Your task to perform on an android device: open app "Facebook Messenger" (install if not already installed) Image 0: 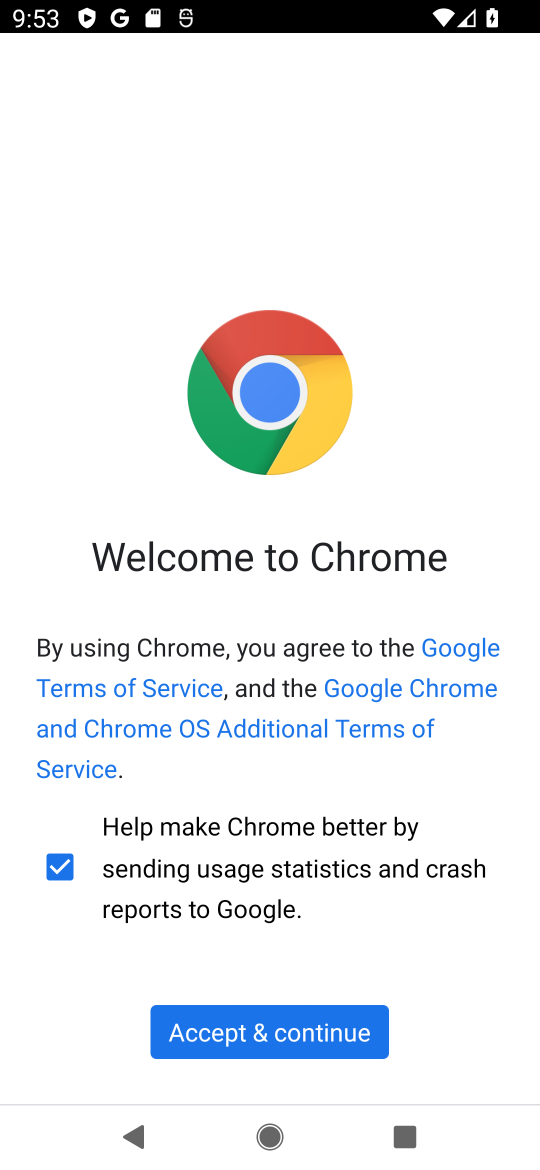
Step 0: press home button
Your task to perform on an android device: open app "Facebook Messenger" (install if not already installed) Image 1: 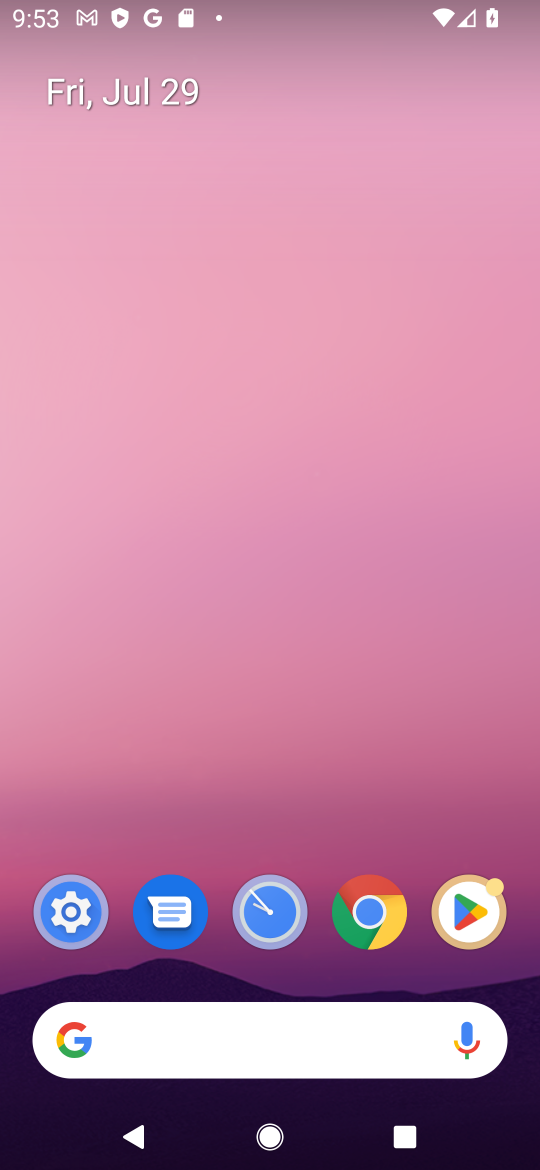
Step 1: click (287, 3)
Your task to perform on an android device: open app "Facebook Messenger" (install if not already installed) Image 2: 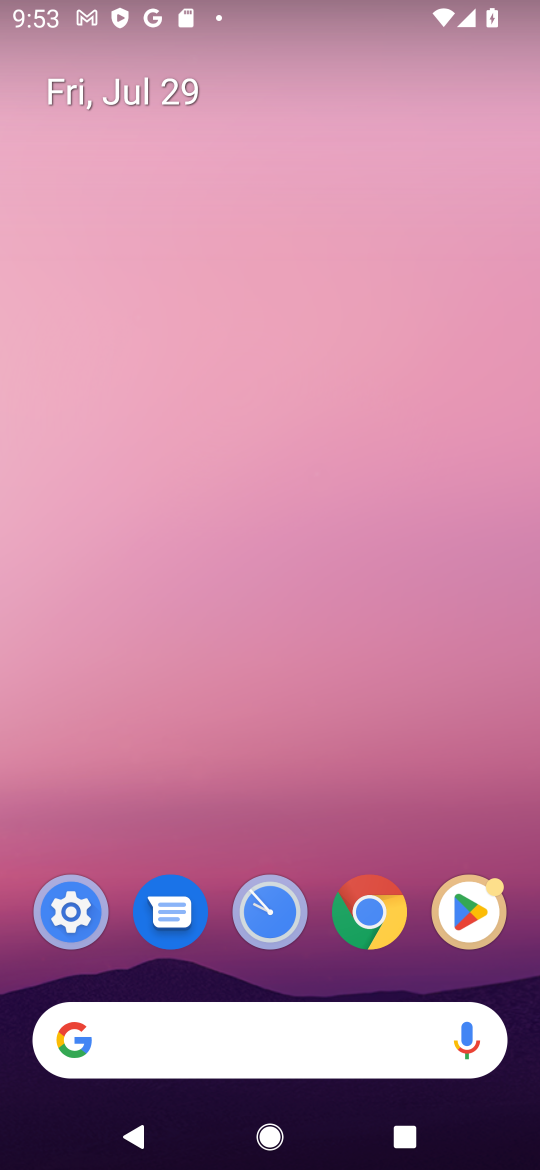
Step 2: drag from (284, 954) to (290, 234)
Your task to perform on an android device: open app "Facebook Messenger" (install if not already installed) Image 3: 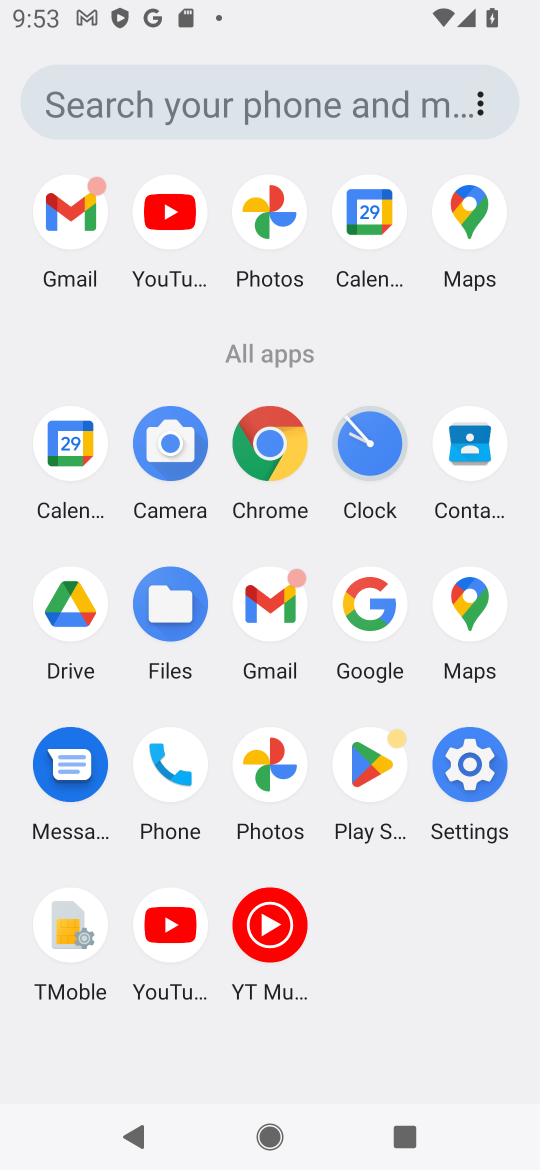
Step 3: click (376, 765)
Your task to perform on an android device: open app "Facebook Messenger" (install if not already installed) Image 4: 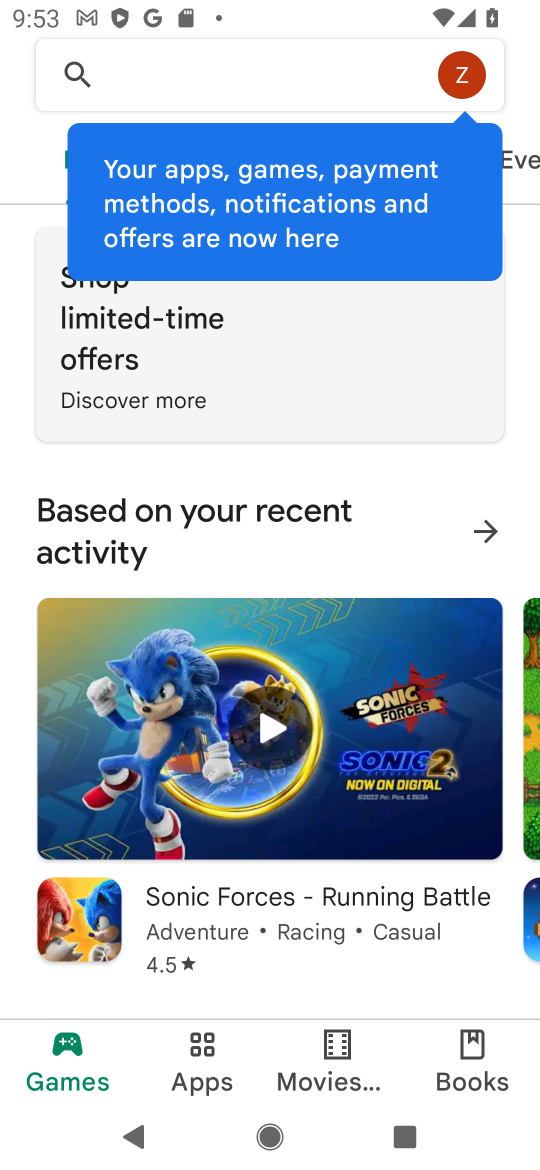
Step 4: click (325, 79)
Your task to perform on an android device: open app "Facebook Messenger" (install if not already installed) Image 5: 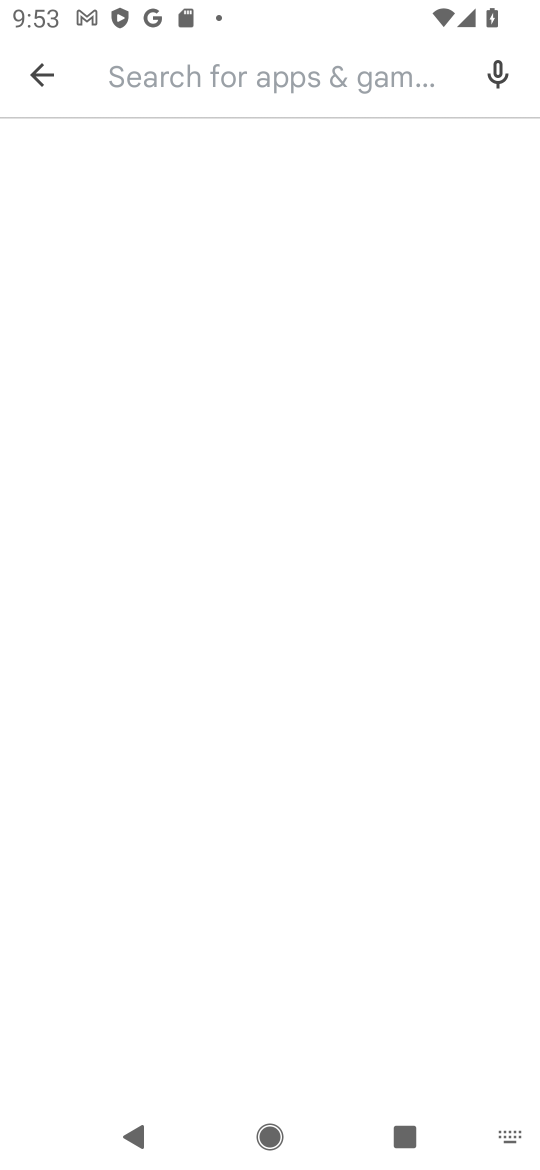
Step 5: click (159, 78)
Your task to perform on an android device: open app "Facebook Messenger" (install if not already installed) Image 6: 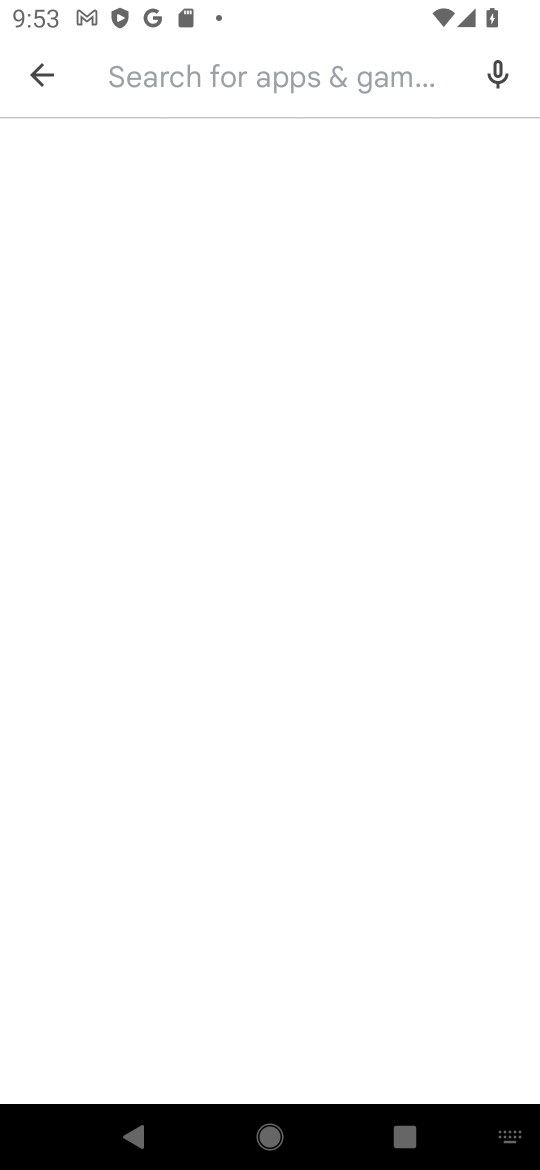
Step 6: type "Facebook Messenger"
Your task to perform on an android device: open app "Facebook Messenger" (install if not already installed) Image 7: 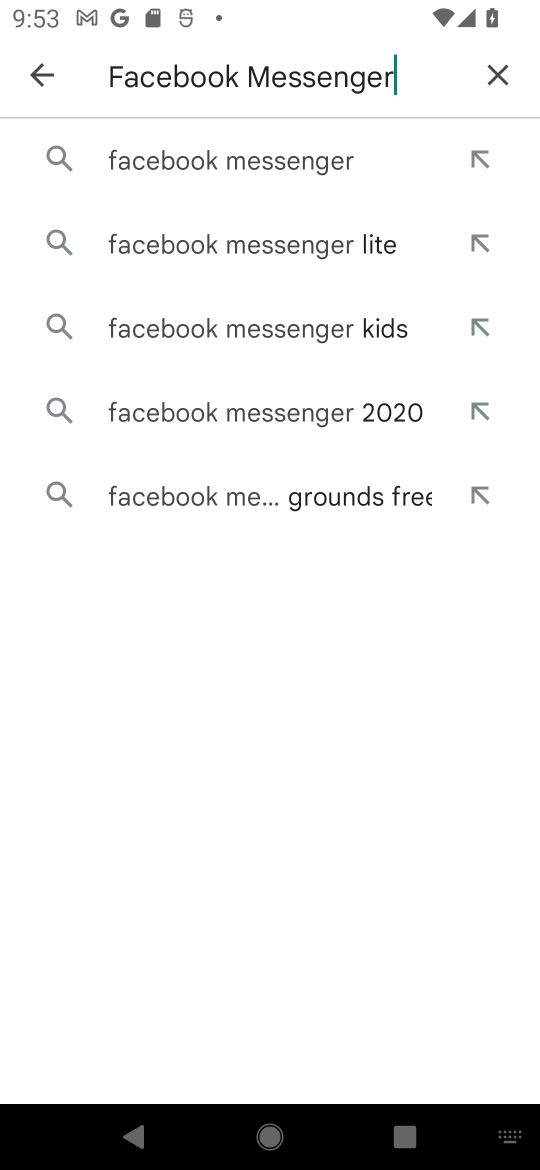
Step 7: click (232, 152)
Your task to perform on an android device: open app "Facebook Messenger" (install if not already installed) Image 8: 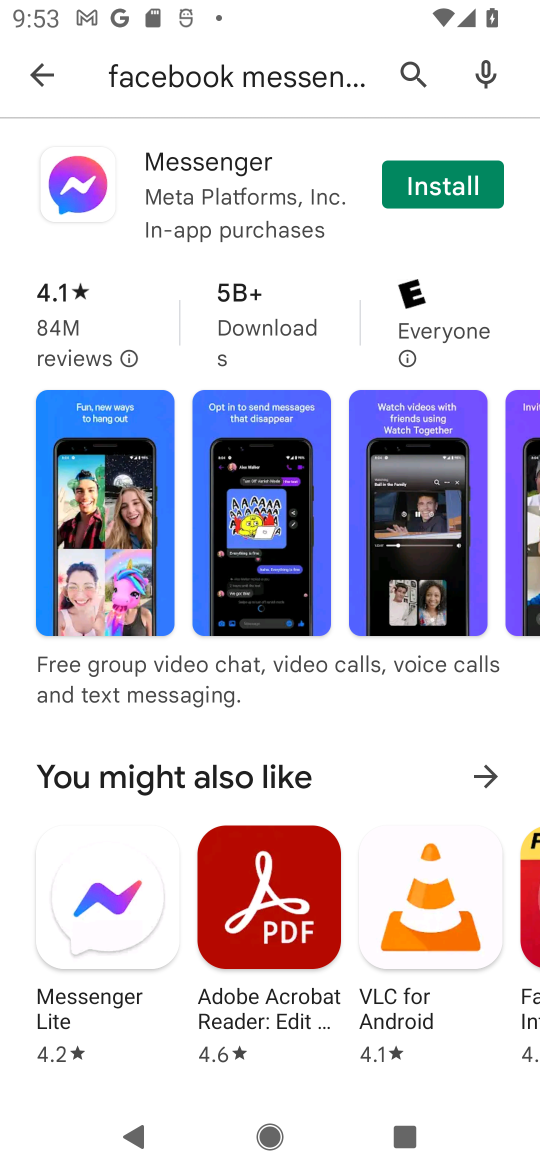
Step 8: click (421, 187)
Your task to perform on an android device: open app "Facebook Messenger" (install if not already installed) Image 9: 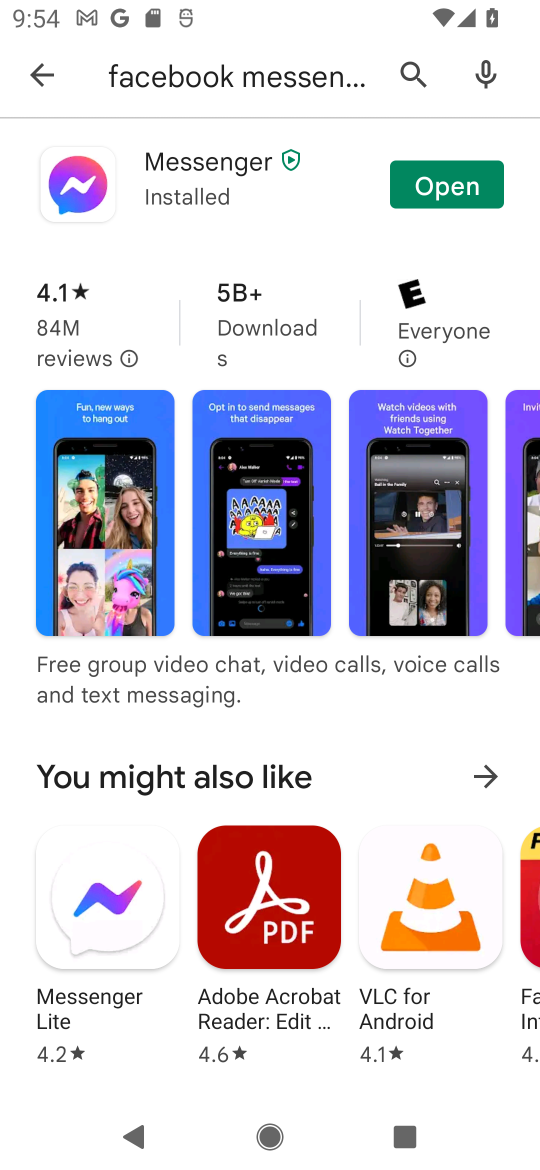
Step 9: click (445, 187)
Your task to perform on an android device: open app "Facebook Messenger" (install if not already installed) Image 10: 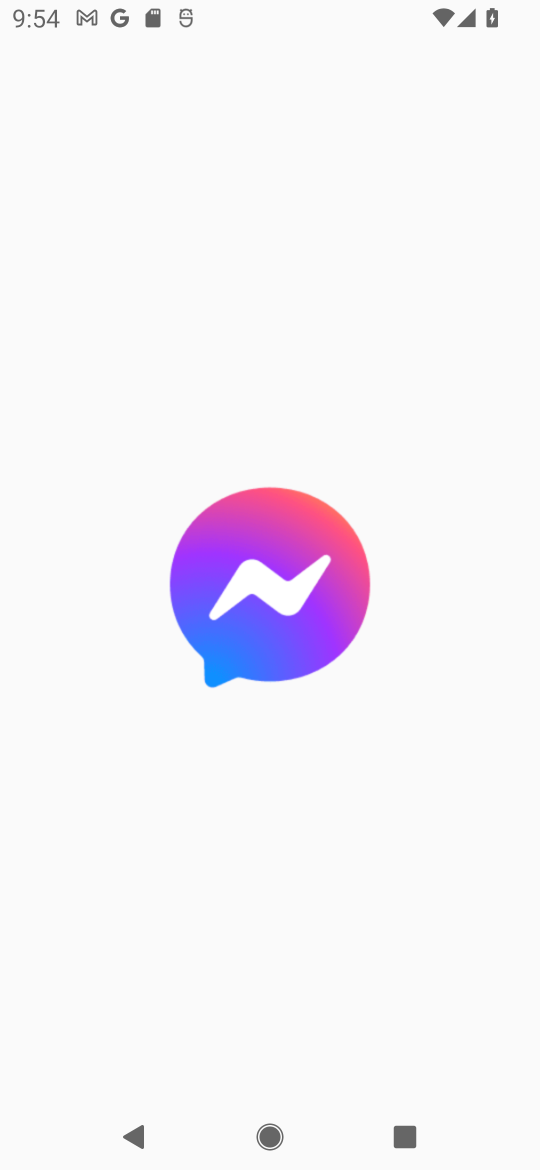
Step 10: task complete